Your task to perform on an android device: Open maps Image 0: 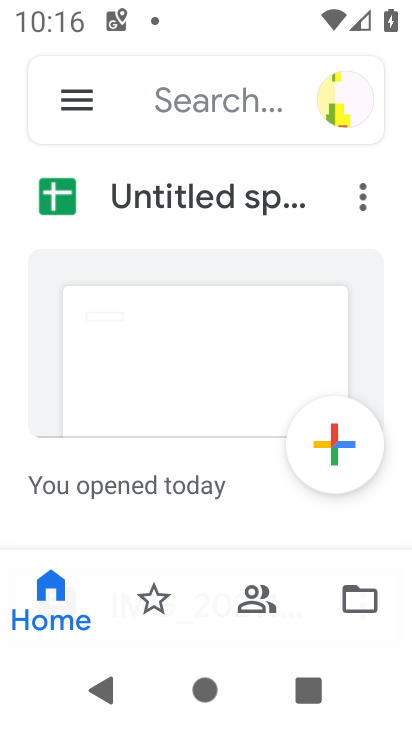
Step 0: press home button
Your task to perform on an android device: Open maps Image 1: 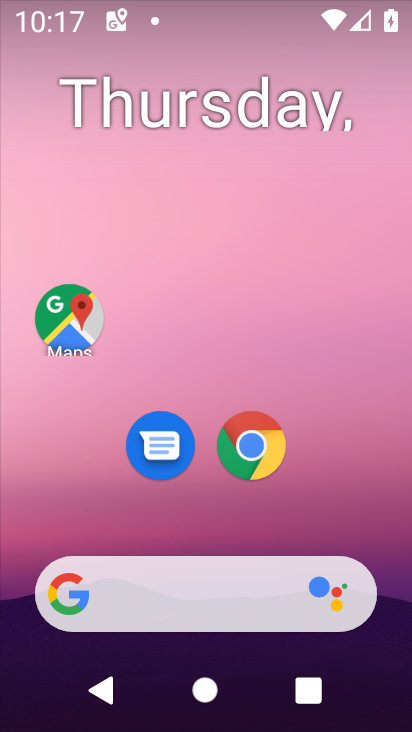
Step 1: drag from (361, 528) to (254, 13)
Your task to perform on an android device: Open maps Image 2: 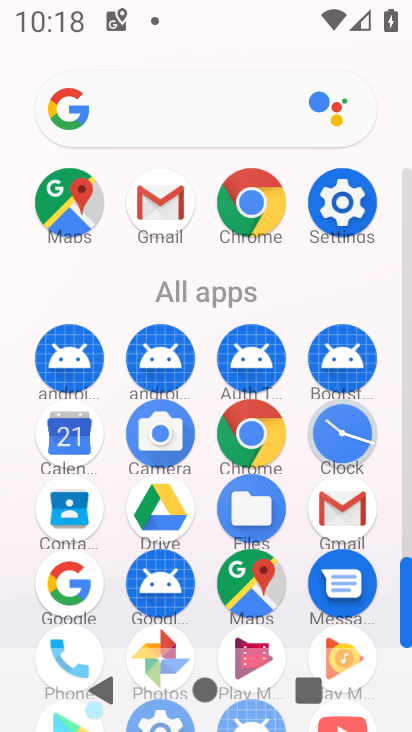
Step 2: click (243, 589)
Your task to perform on an android device: Open maps Image 3: 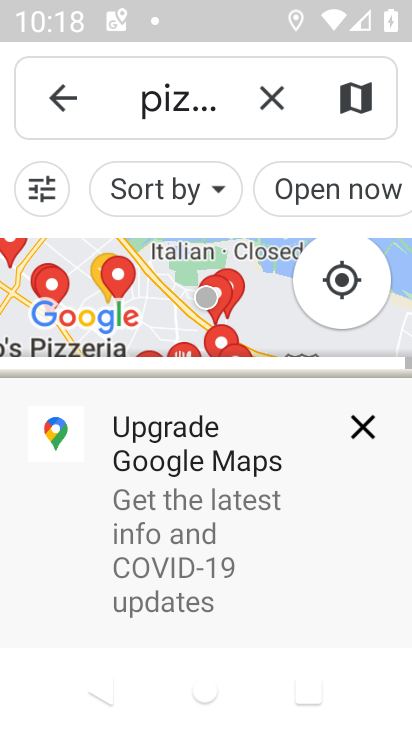
Step 3: click (270, 90)
Your task to perform on an android device: Open maps Image 4: 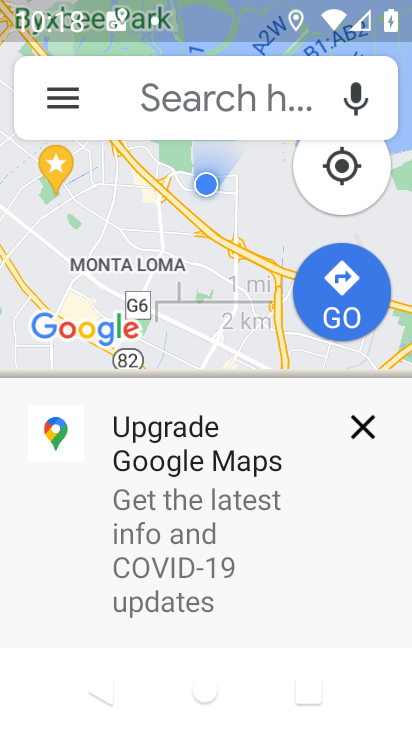
Step 4: task complete